Your task to perform on an android device: open app "AliExpress" (install if not already installed) and enter user name: "orangutan@inbox.com" and password: "Lyons" Image 0: 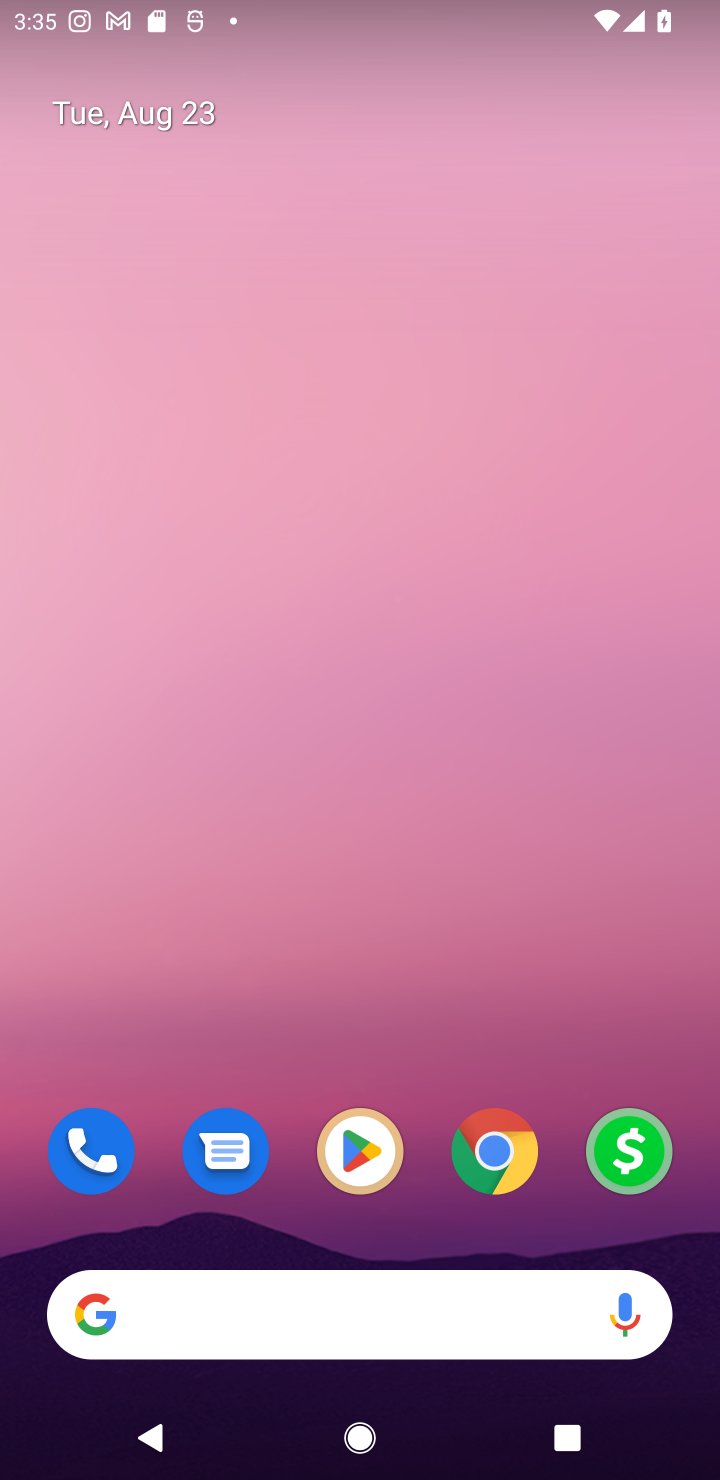
Step 0: click (355, 1152)
Your task to perform on an android device: open app "AliExpress" (install if not already installed) and enter user name: "orangutan@inbox.com" and password: "Lyons" Image 1: 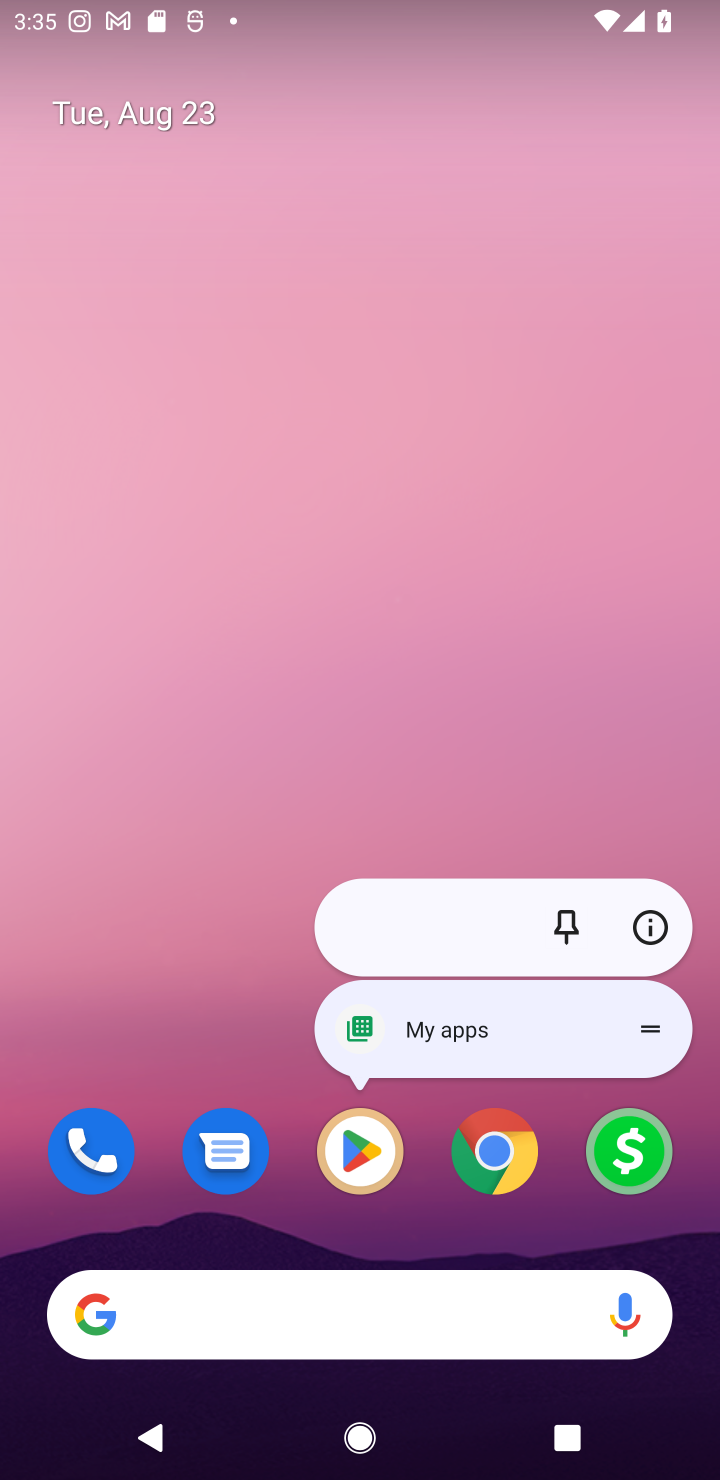
Step 1: click (355, 1157)
Your task to perform on an android device: open app "AliExpress" (install if not already installed) and enter user name: "orangutan@inbox.com" and password: "Lyons" Image 2: 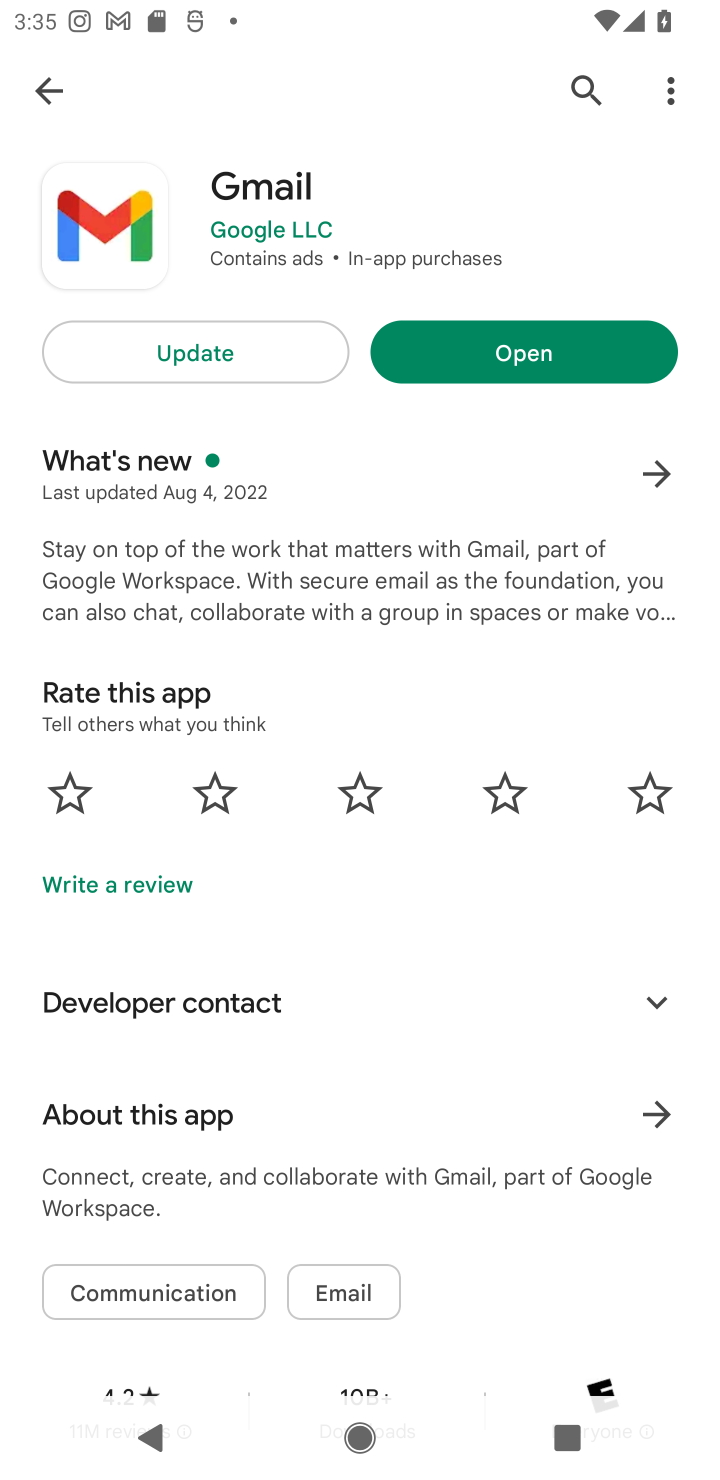
Step 2: click (584, 82)
Your task to perform on an android device: open app "AliExpress" (install if not already installed) and enter user name: "orangutan@inbox.com" and password: "Lyons" Image 3: 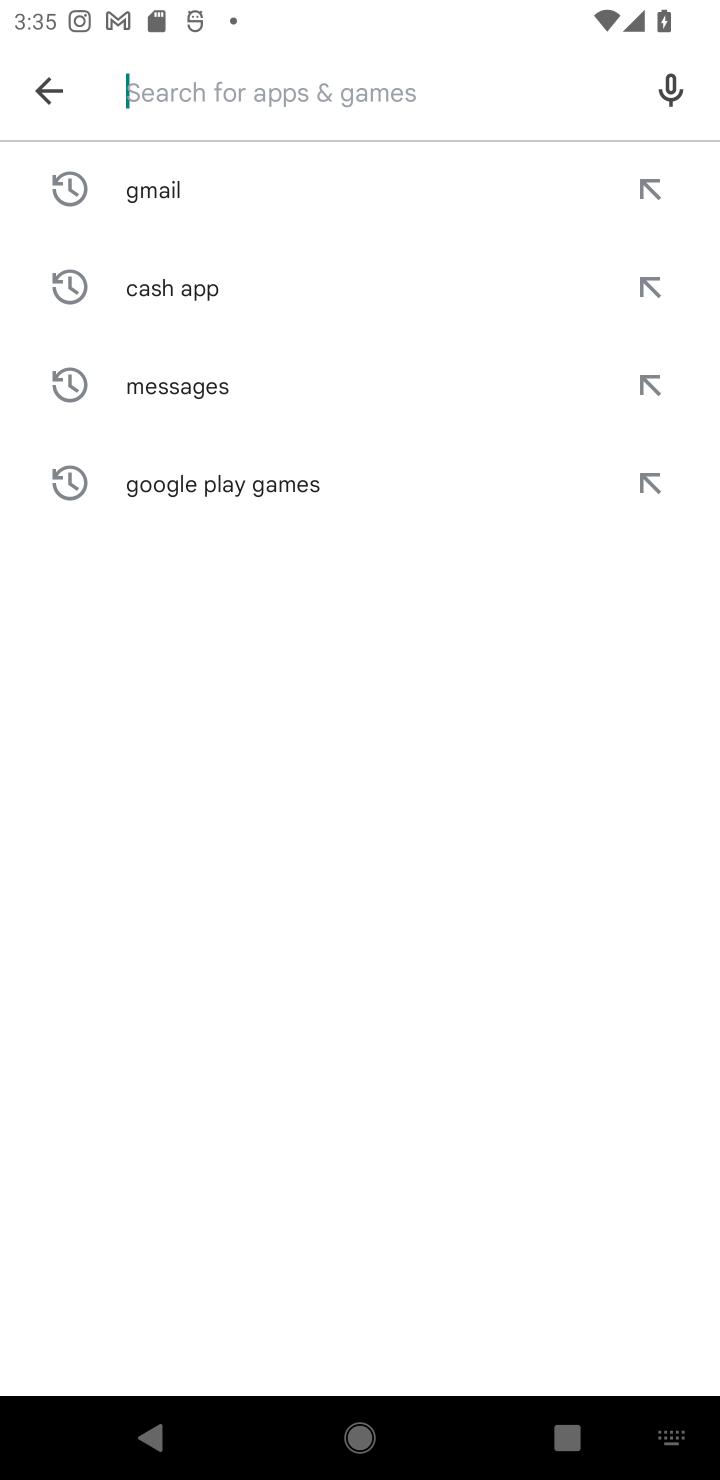
Step 3: type "AliExpress"
Your task to perform on an android device: open app "AliExpress" (install if not already installed) and enter user name: "orangutan@inbox.com" and password: "Lyons" Image 4: 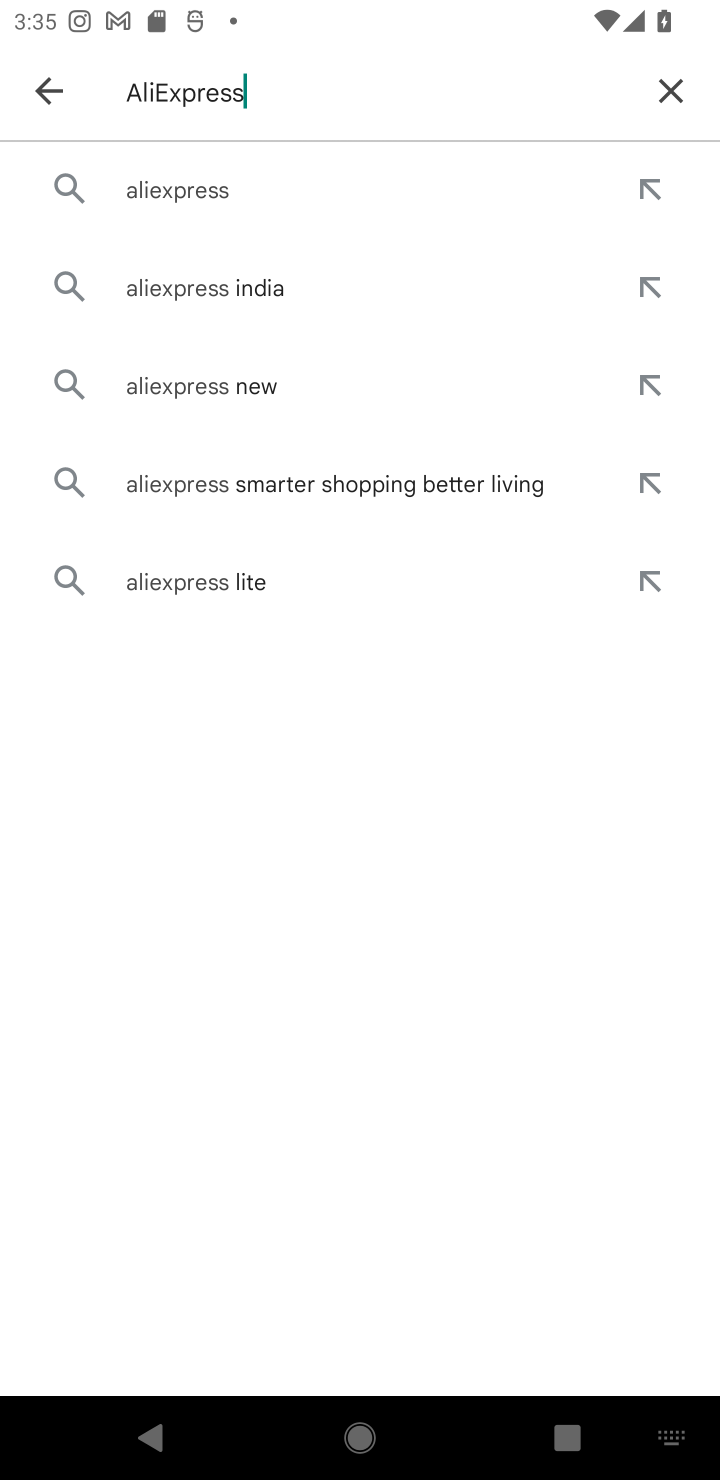
Step 4: click (177, 173)
Your task to perform on an android device: open app "AliExpress" (install if not already installed) and enter user name: "orangutan@inbox.com" and password: "Lyons" Image 5: 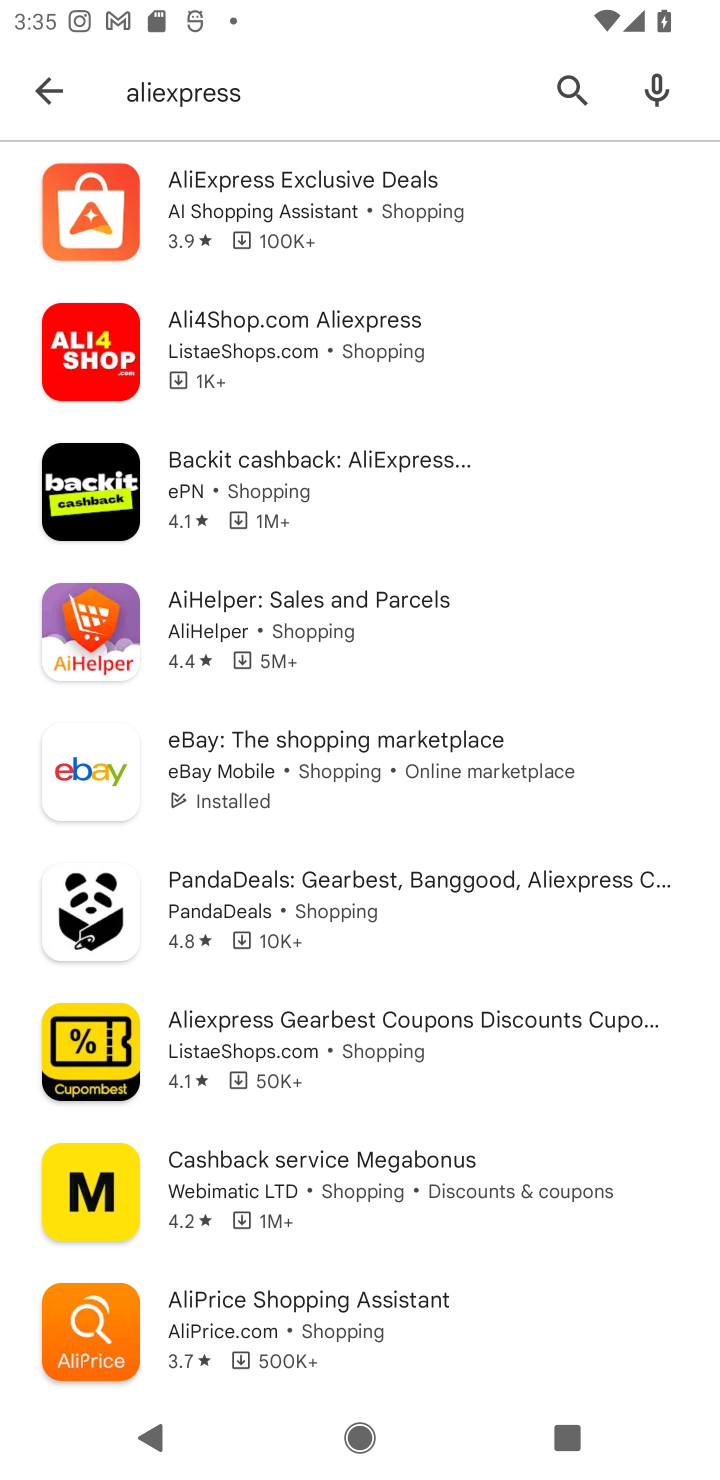
Step 5: click (352, 225)
Your task to perform on an android device: open app "AliExpress" (install if not already installed) and enter user name: "orangutan@inbox.com" and password: "Lyons" Image 6: 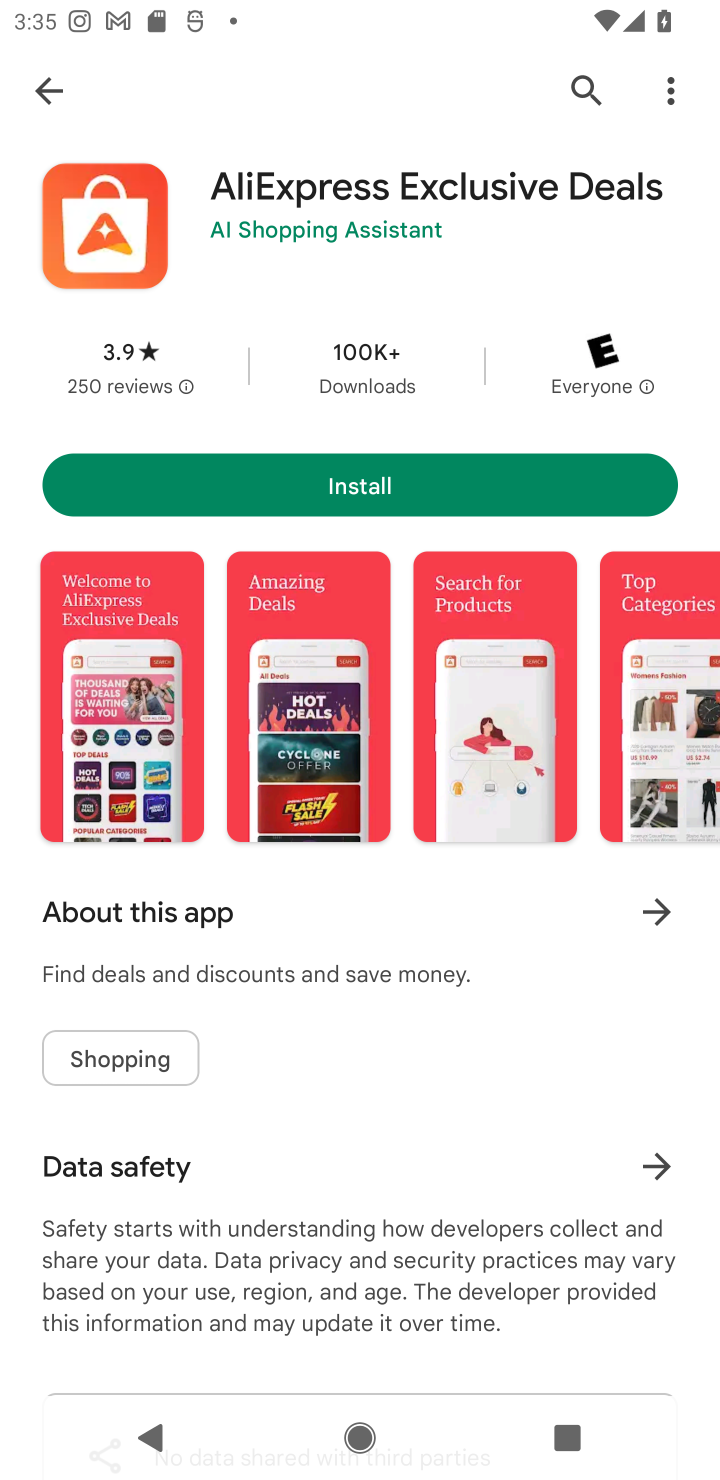
Step 6: click (382, 484)
Your task to perform on an android device: open app "AliExpress" (install if not already installed) and enter user name: "orangutan@inbox.com" and password: "Lyons" Image 7: 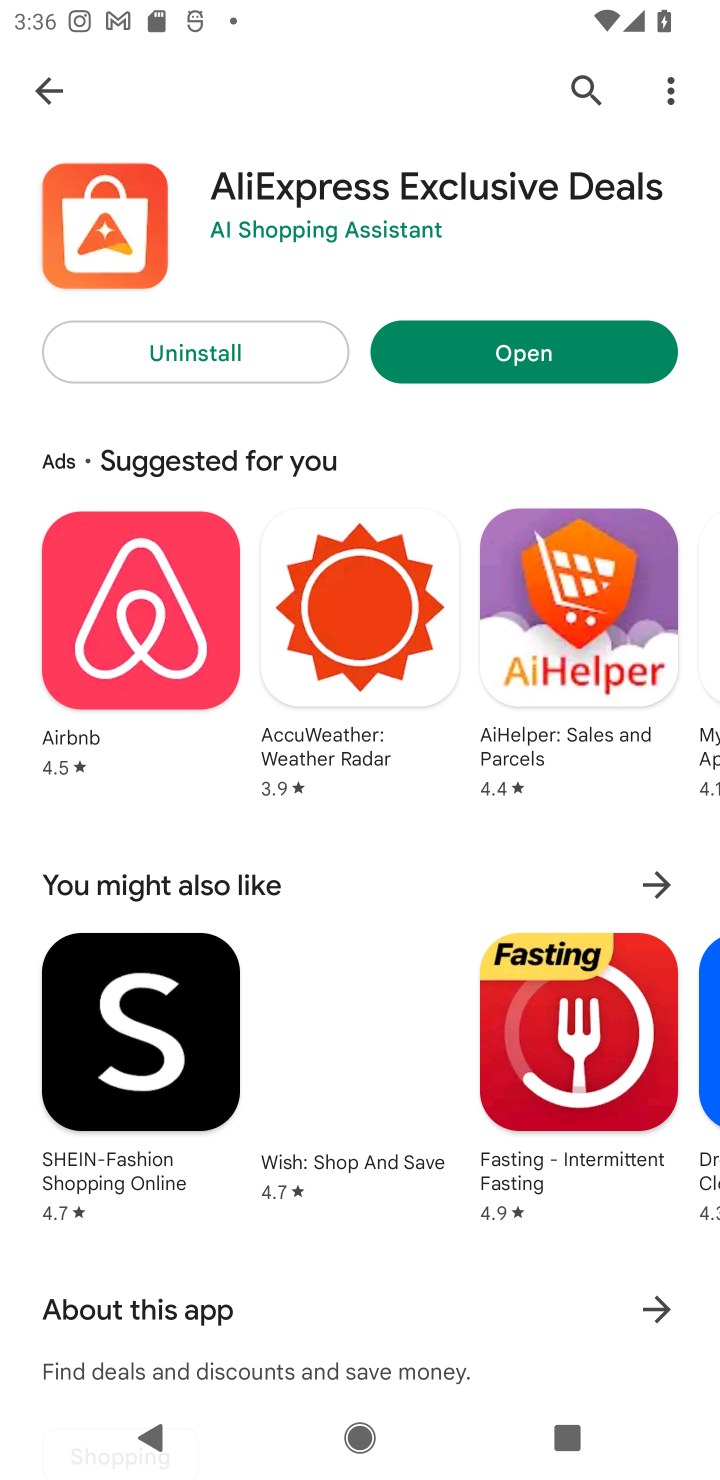
Step 7: click (589, 348)
Your task to perform on an android device: open app "AliExpress" (install if not already installed) and enter user name: "orangutan@inbox.com" and password: "Lyons" Image 8: 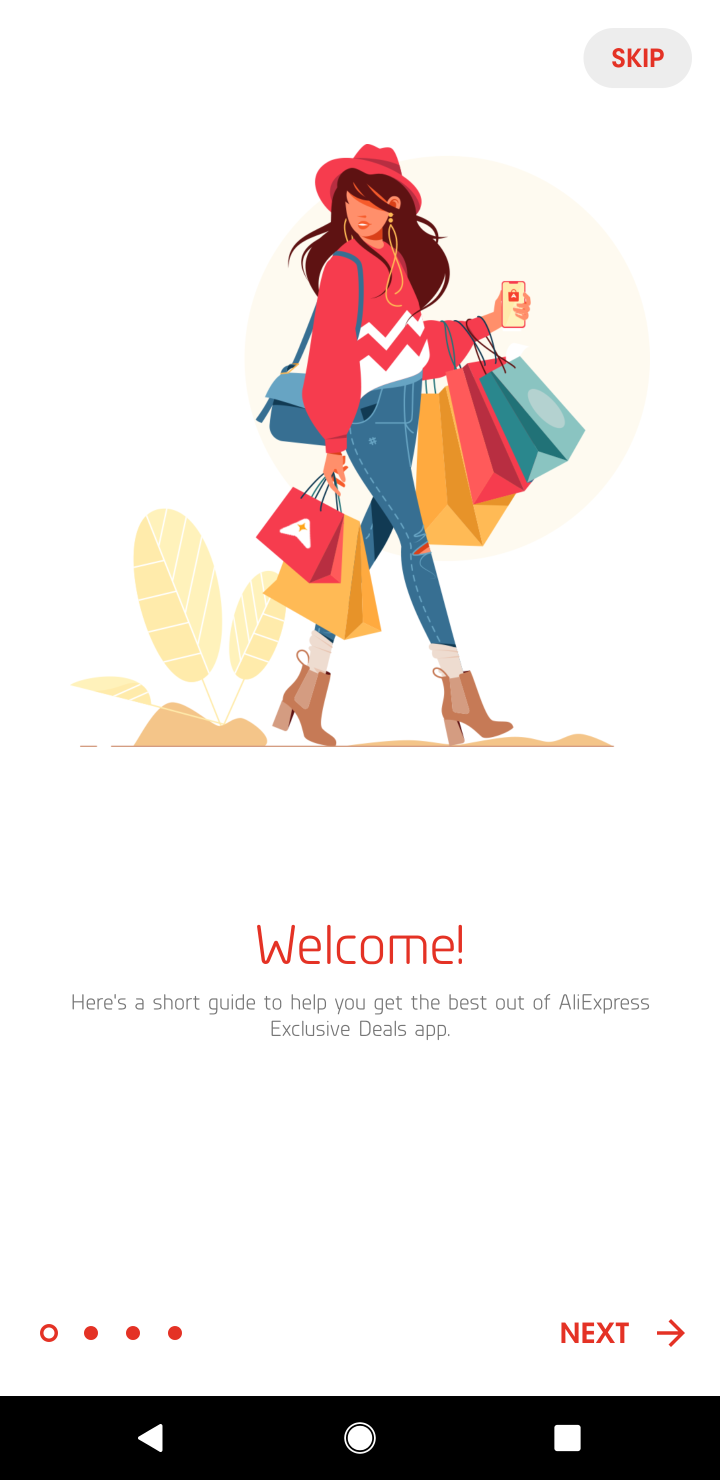
Step 8: click (605, 1332)
Your task to perform on an android device: open app "AliExpress" (install if not already installed) and enter user name: "orangutan@inbox.com" and password: "Lyons" Image 9: 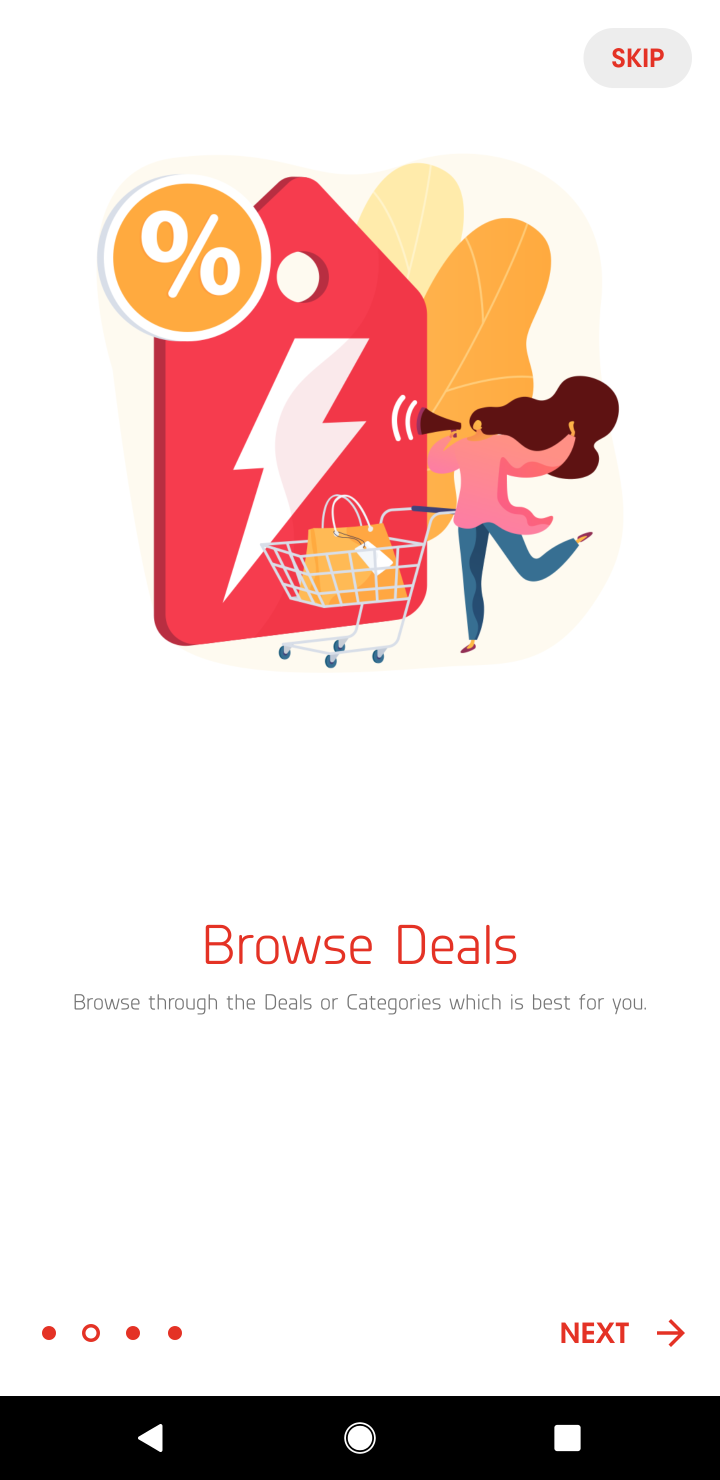
Step 9: click (602, 1328)
Your task to perform on an android device: open app "AliExpress" (install if not already installed) and enter user name: "orangutan@inbox.com" and password: "Lyons" Image 10: 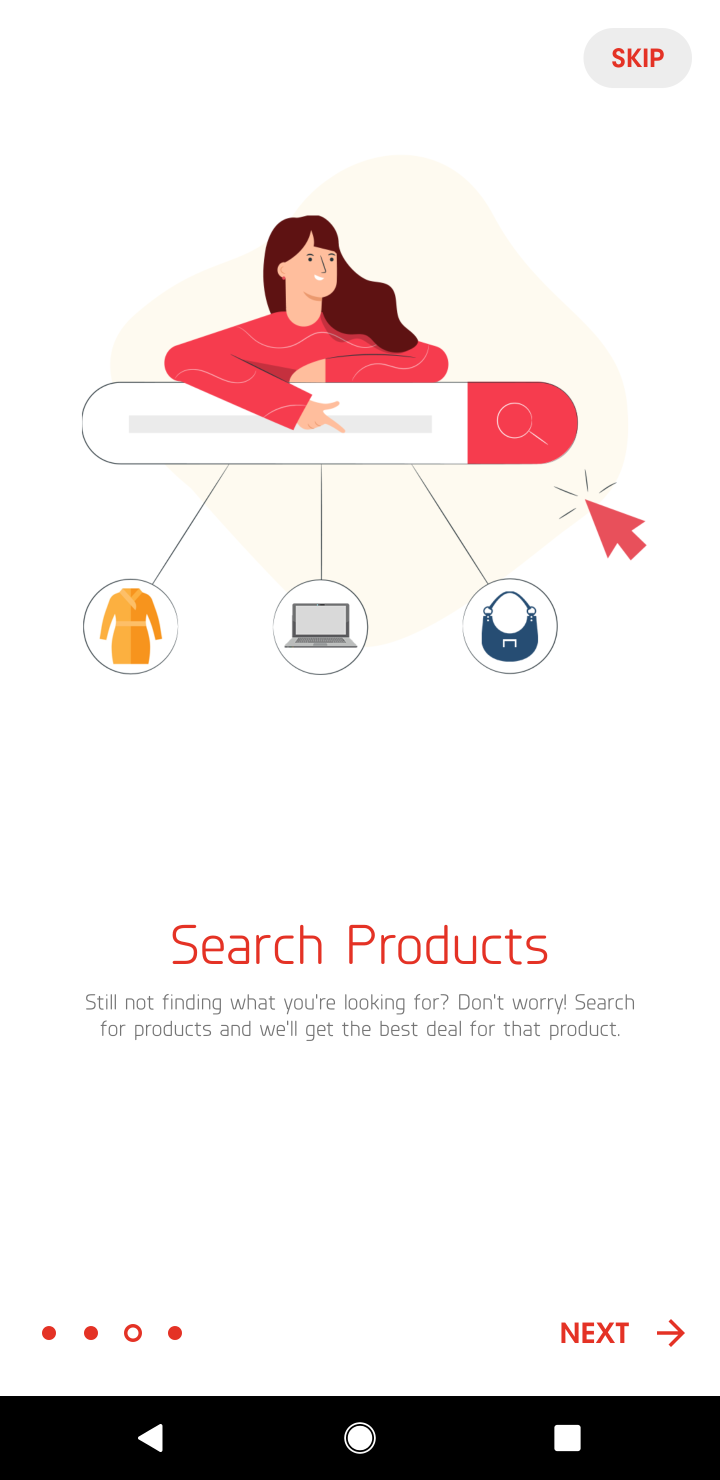
Step 10: click (608, 1338)
Your task to perform on an android device: open app "AliExpress" (install if not already installed) and enter user name: "orangutan@inbox.com" and password: "Lyons" Image 11: 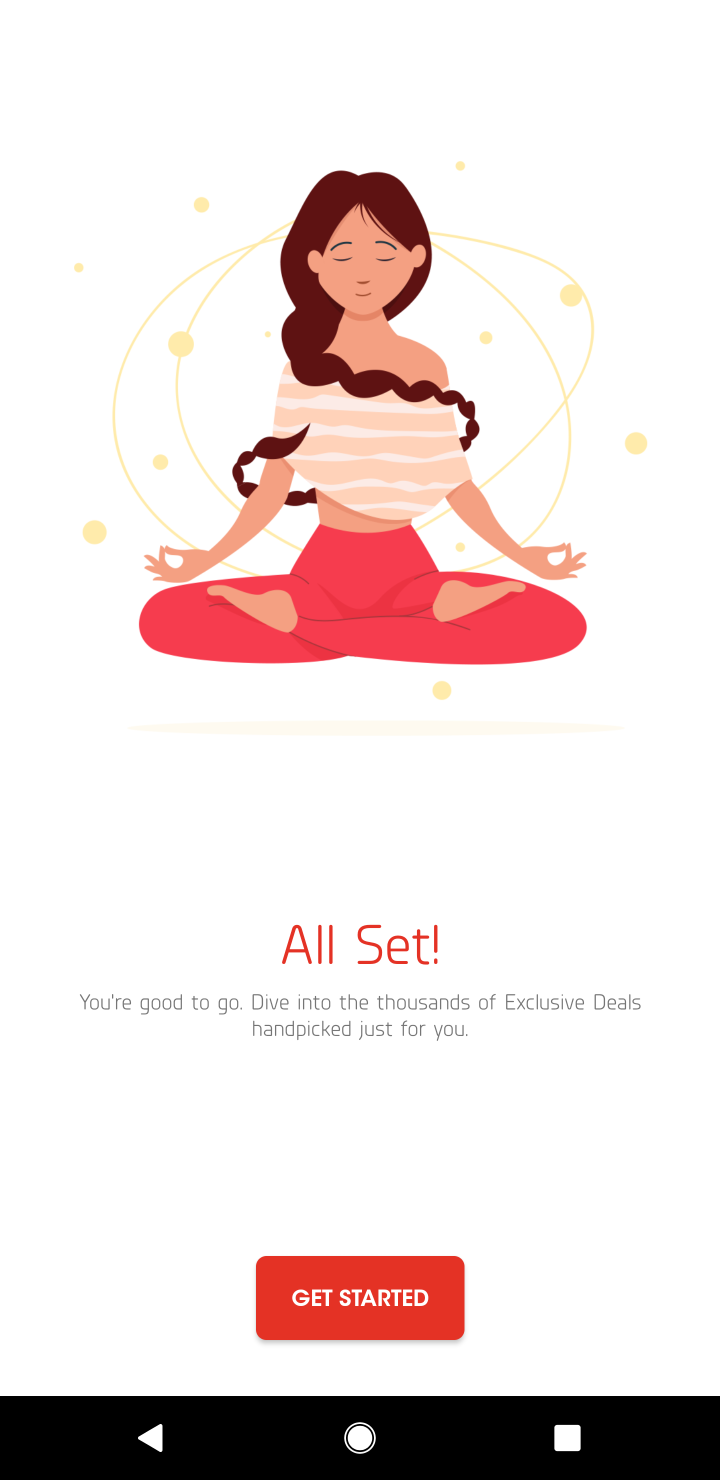
Step 11: click (349, 1294)
Your task to perform on an android device: open app "AliExpress" (install if not already installed) and enter user name: "orangutan@inbox.com" and password: "Lyons" Image 12: 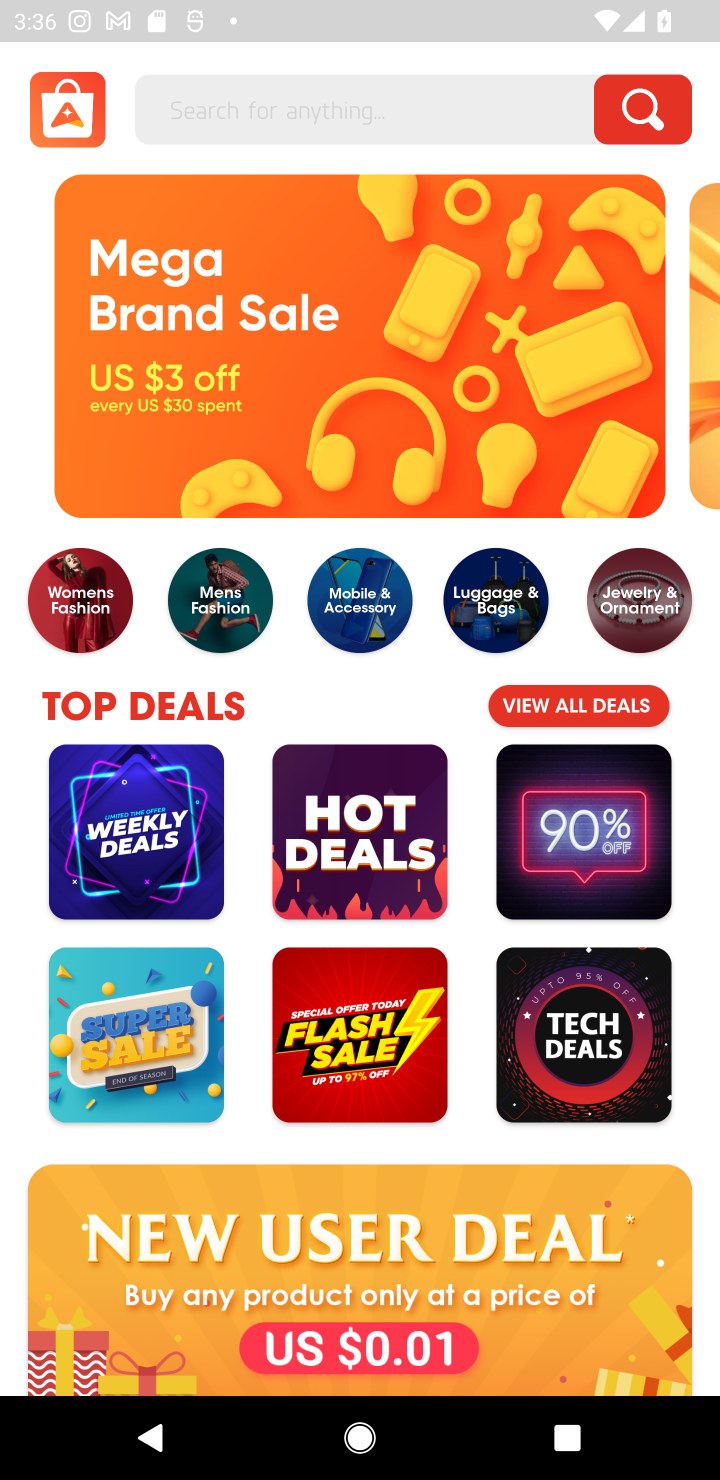
Step 12: task complete